Your task to perform on an android device: Do I have any events tomorrow? Image 0: 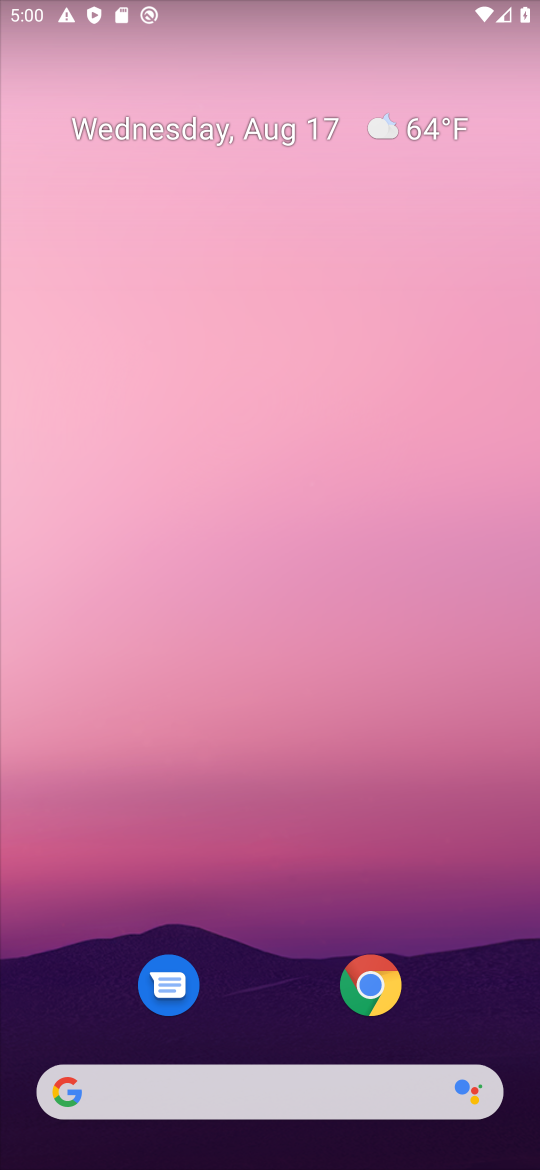
Step 0: drag from (216, 1103) to (308, 320)
Your task to perform on an android device: Do I have any events tomorrow? Image 1: 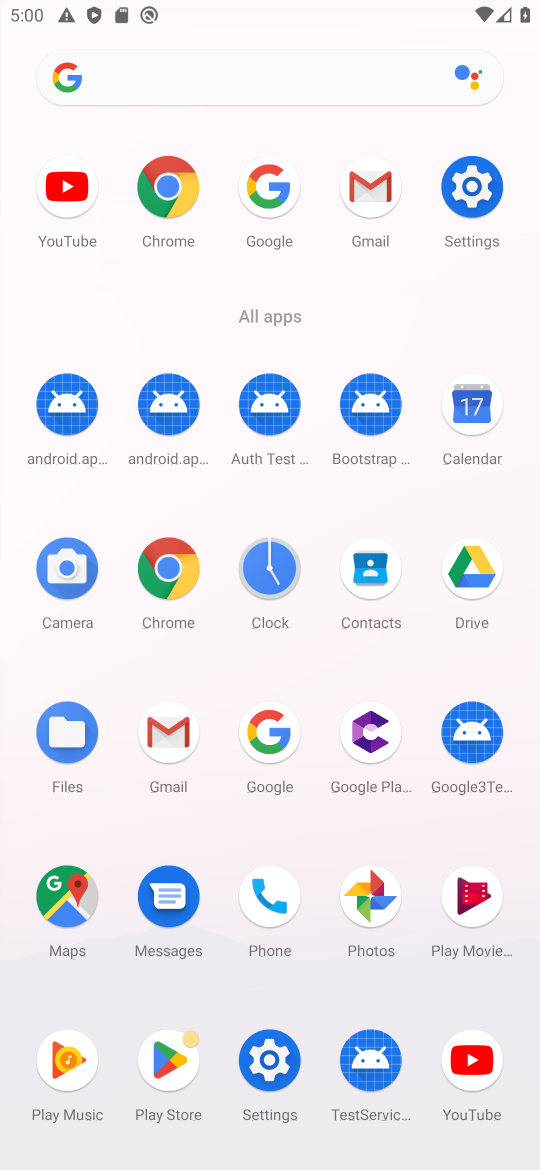
Step 1: click (476, 407)
Your task to perform on an android device: Do I have any events tomorrow? Image 2: 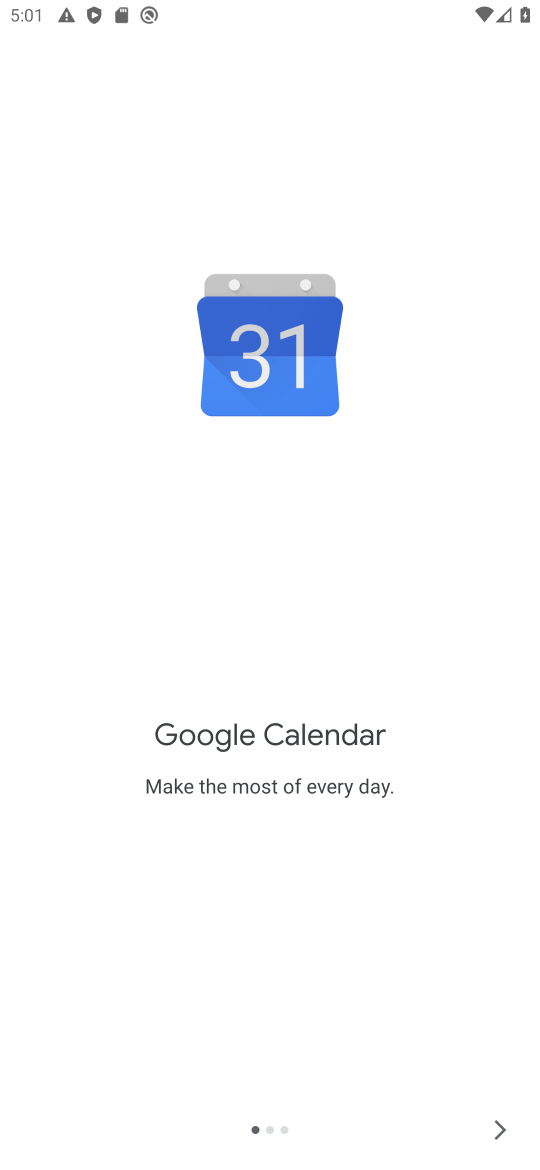
Step 2: click (500, 1127)
Your task to perform on an android device: Do I have any events tomorrow? Image 3: 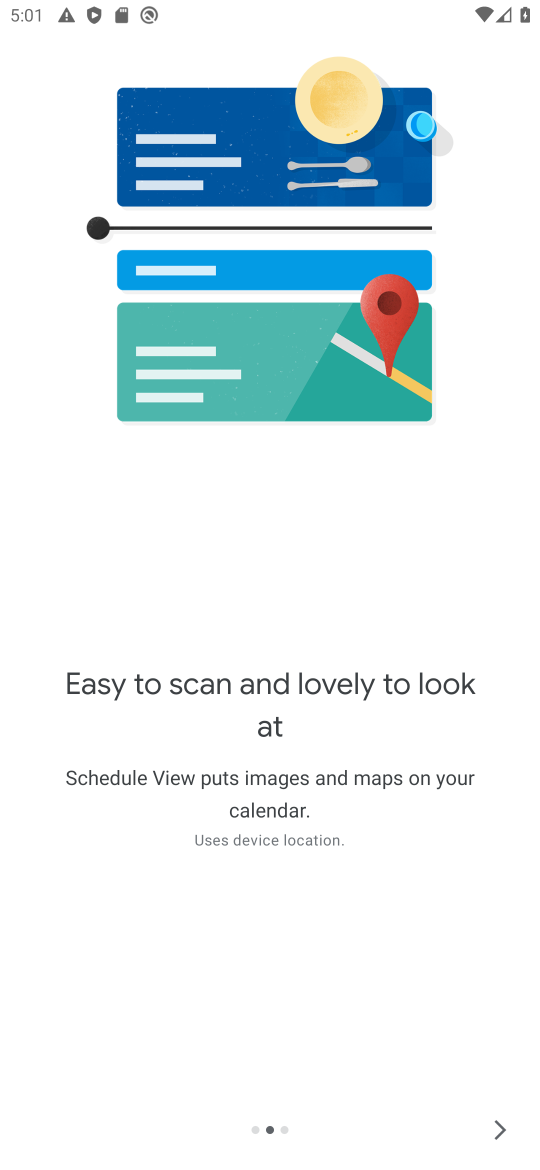
Step 3: click (500, 1127)
Your task to perform on an android device: Do I have any events tomorrow? Image 4: 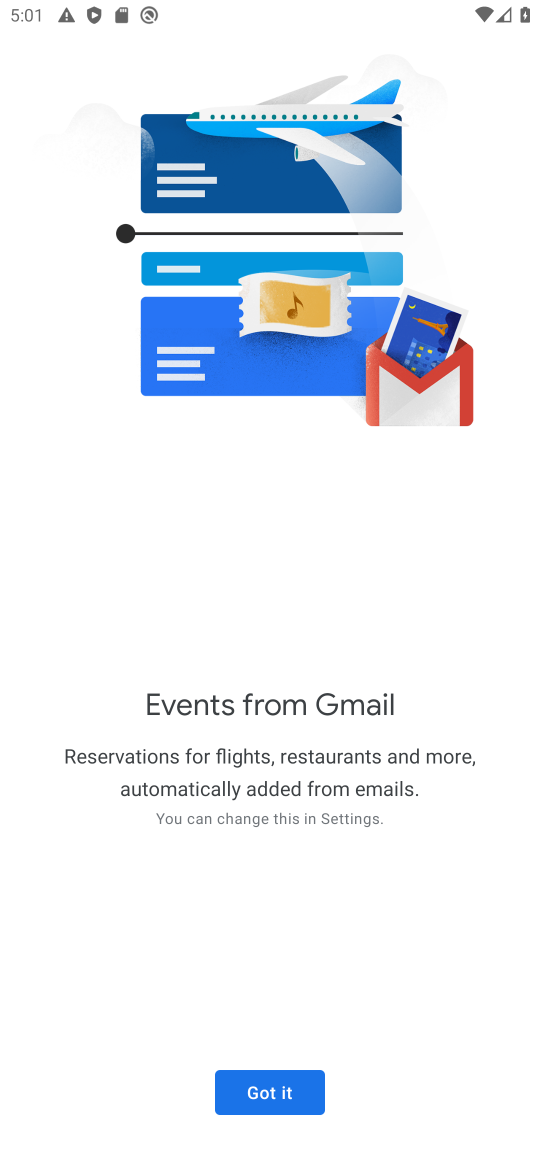
Step 4: click (267, 1096)
Your task to perform on an android device: Do I have any events tomorrow? Image 5: 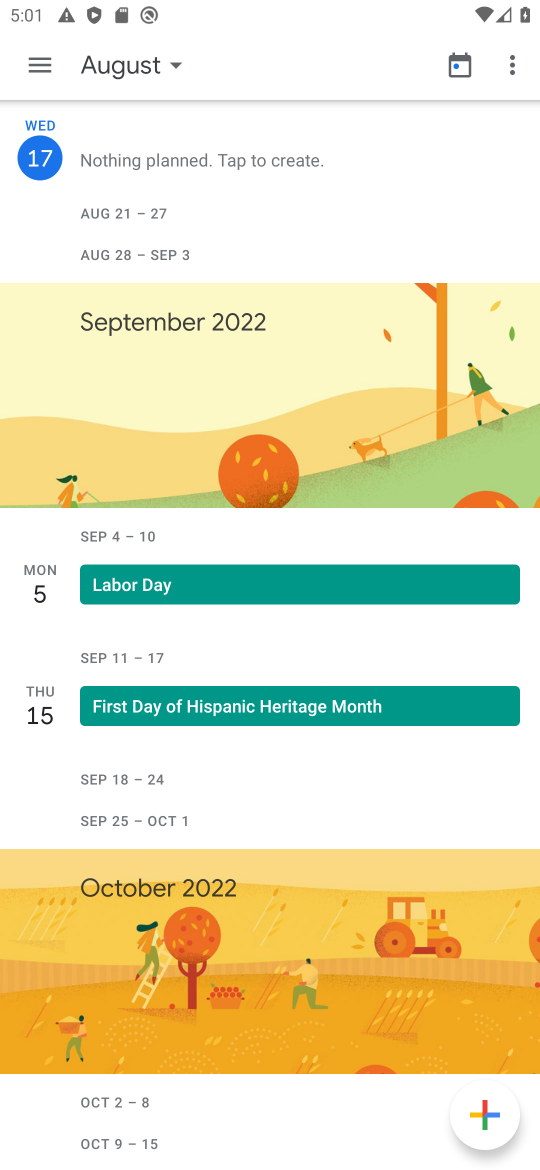
Step 5: click (174, 76)
Your task to perform on an android device: Do I have any events tomorrow? Image 6: 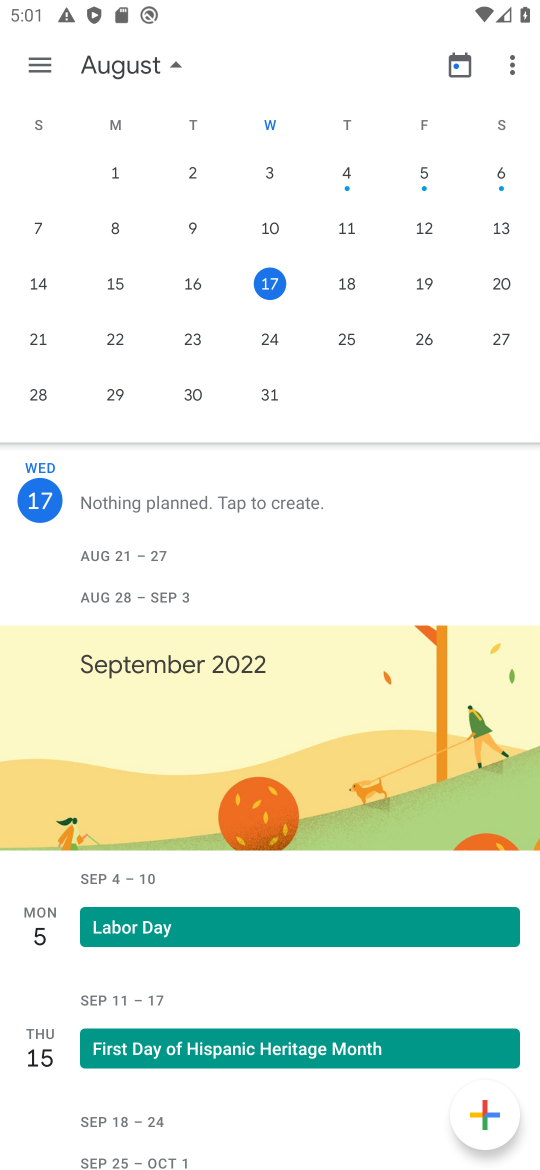
Step 6: click (351, 281)
Your task to perform on an android device: Do I have any events tomorrow? Image 7: 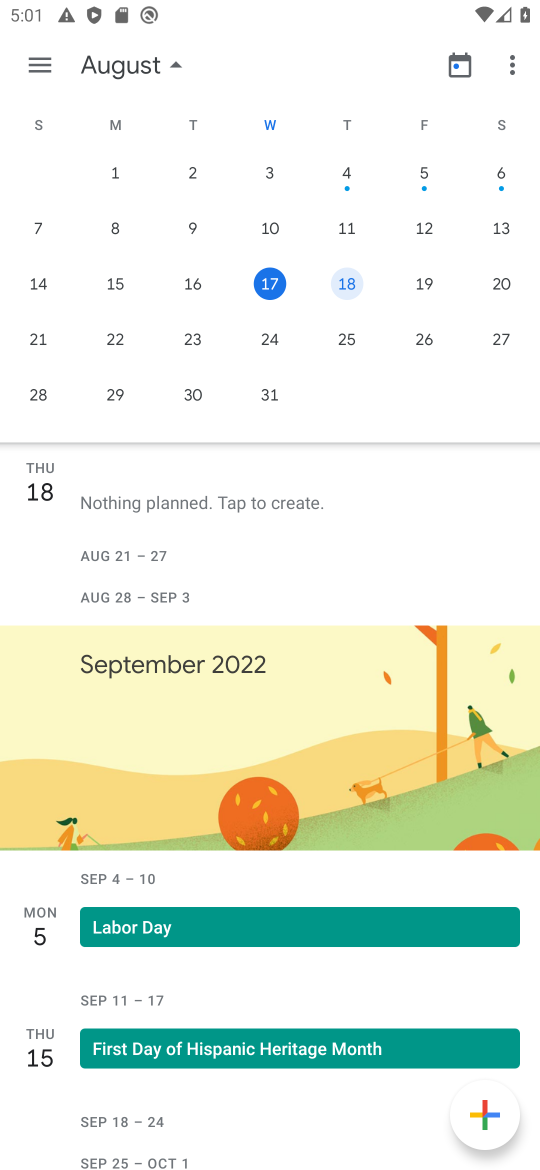
Step 7: click (48, 66)
Your task to perform on an android device: Do I have any events tomorrow? Image 8: 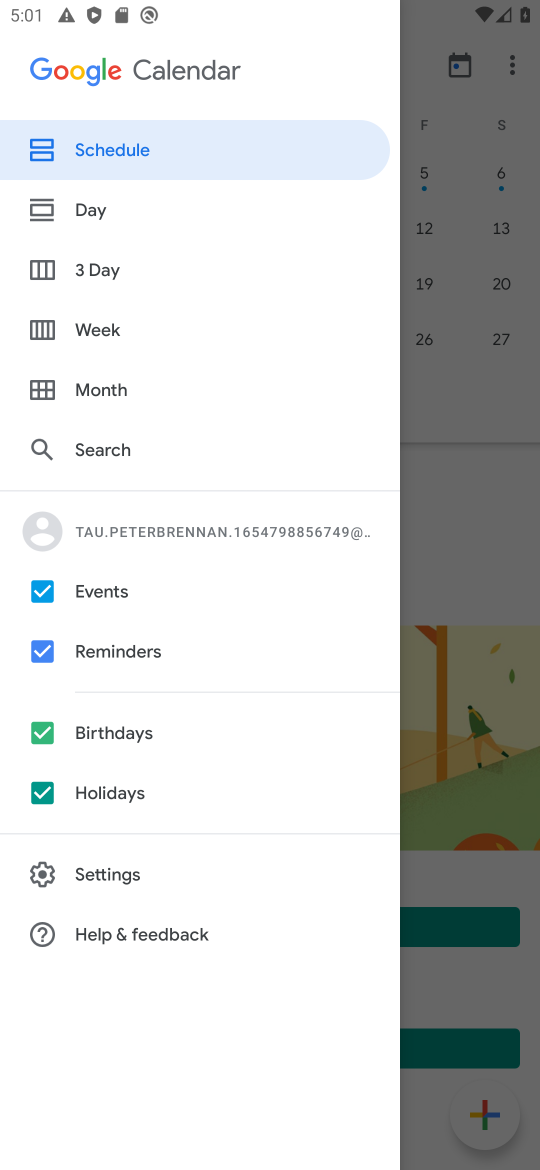
Step 8: click (115, 152)
Your task to perform on an android device: Do I have any events tomorrow? Image 9: 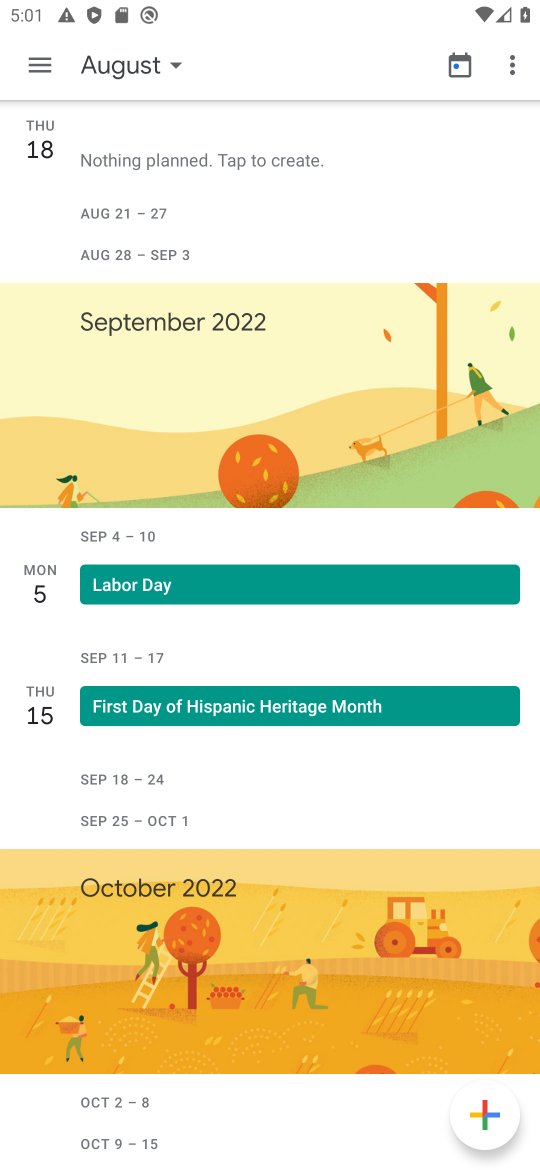
Step 9: task complete